Your task to perform on an android device: Go to ESPN.com Image 0: 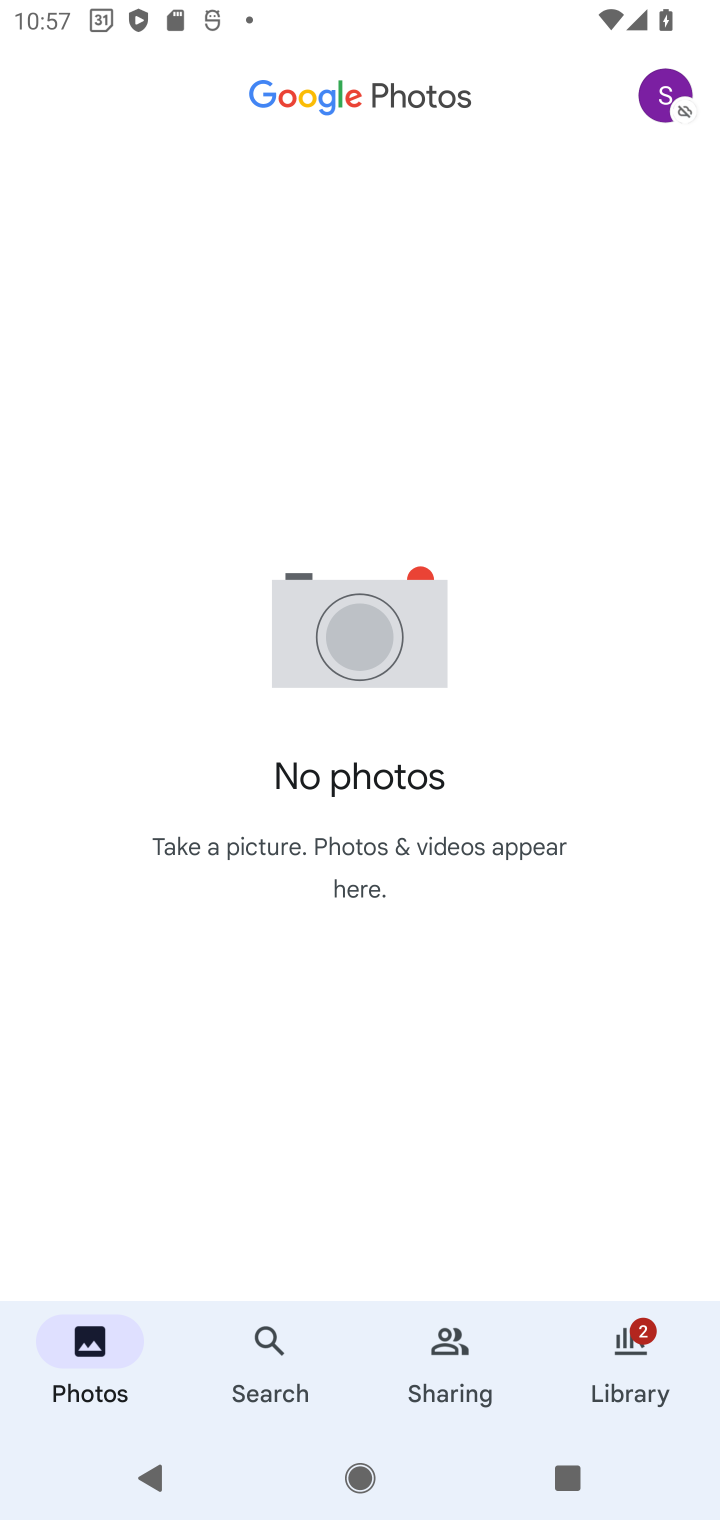
Step 0: press home button
Your task to perform on an android device: Go to ESPN.com Image 1: 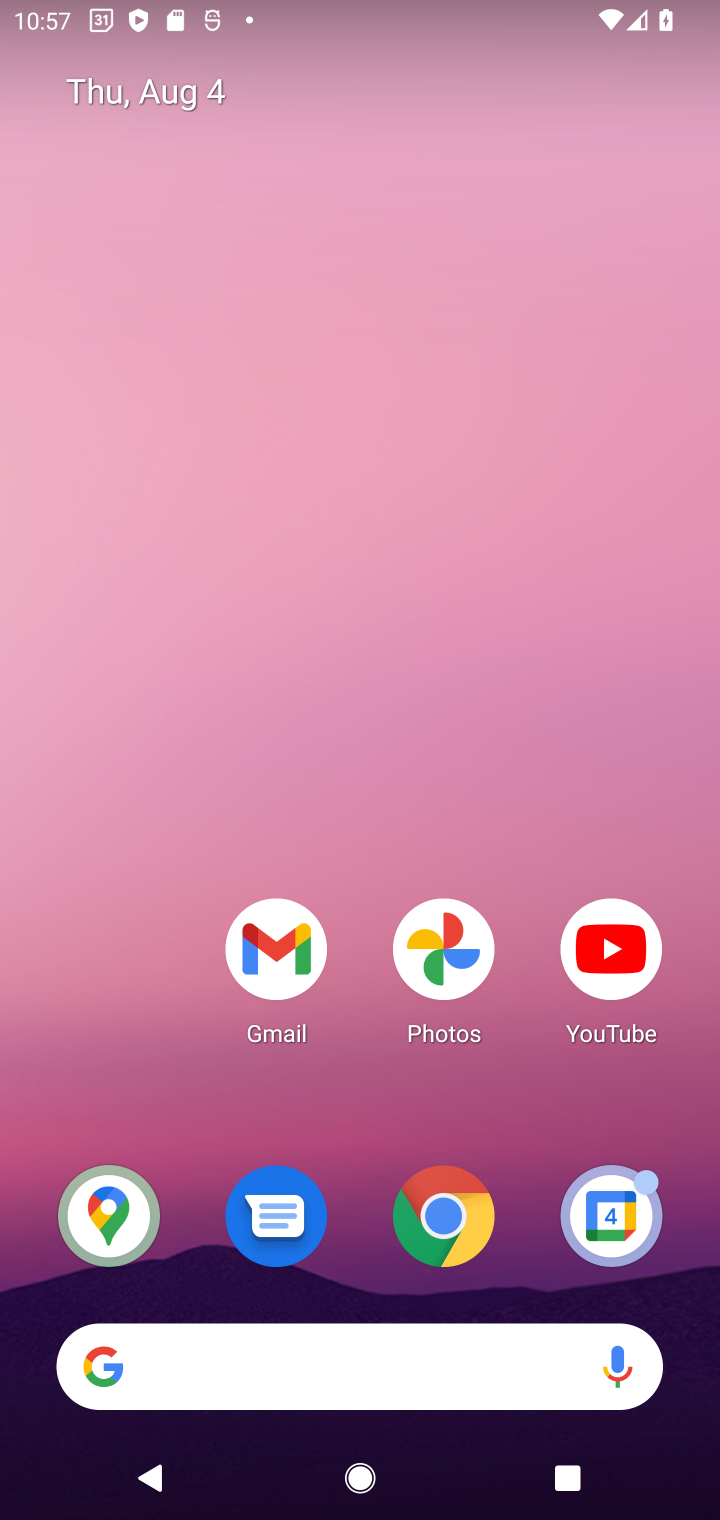
Step 1: click (447, 1219)
Your task to perform on an android device: Go to ESPN.com Image 2: 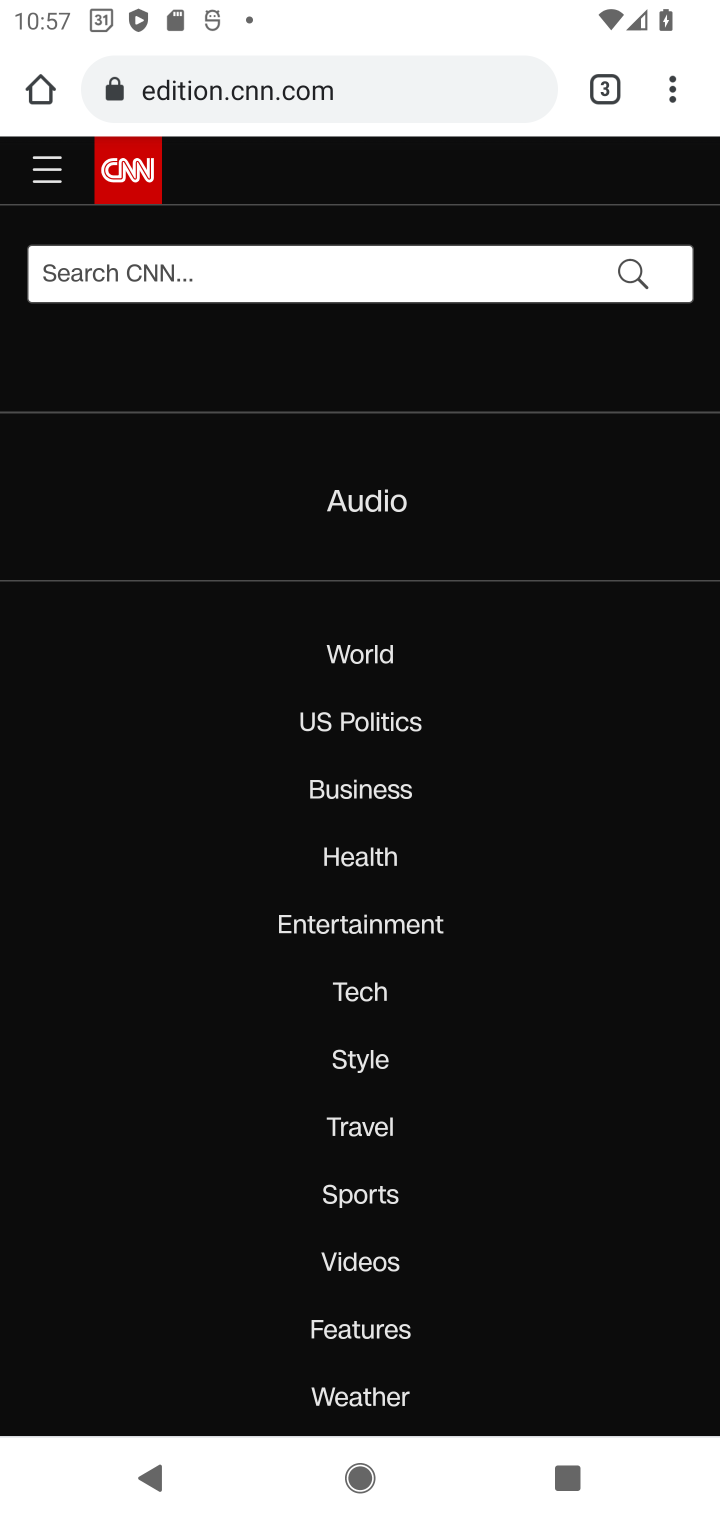
Step 2: click (404, 104)
Your task to perform on an android device: Go to ESPN.com Image 3: 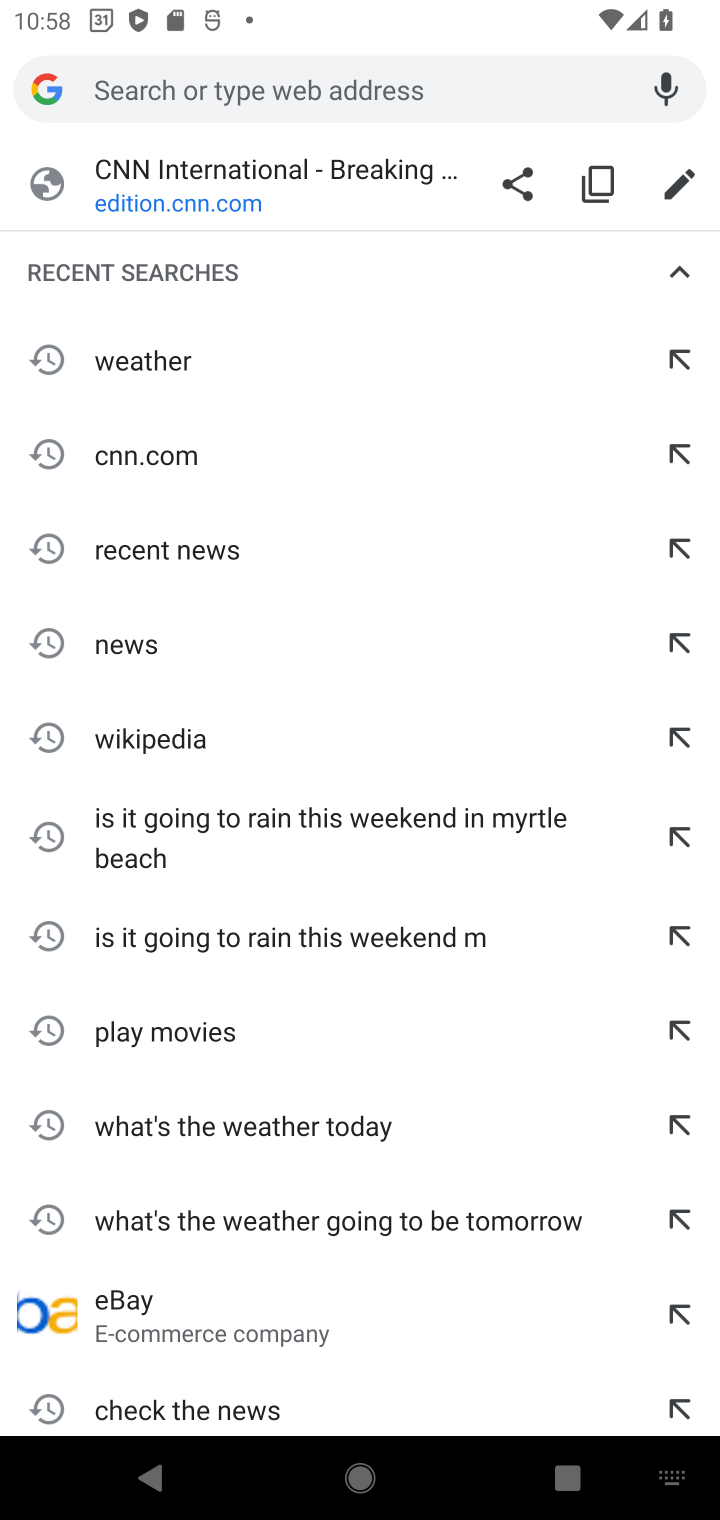
Step 3: type "ESPN.com"
Your task to perform on an android device: Go to ESPN.com Image 4: 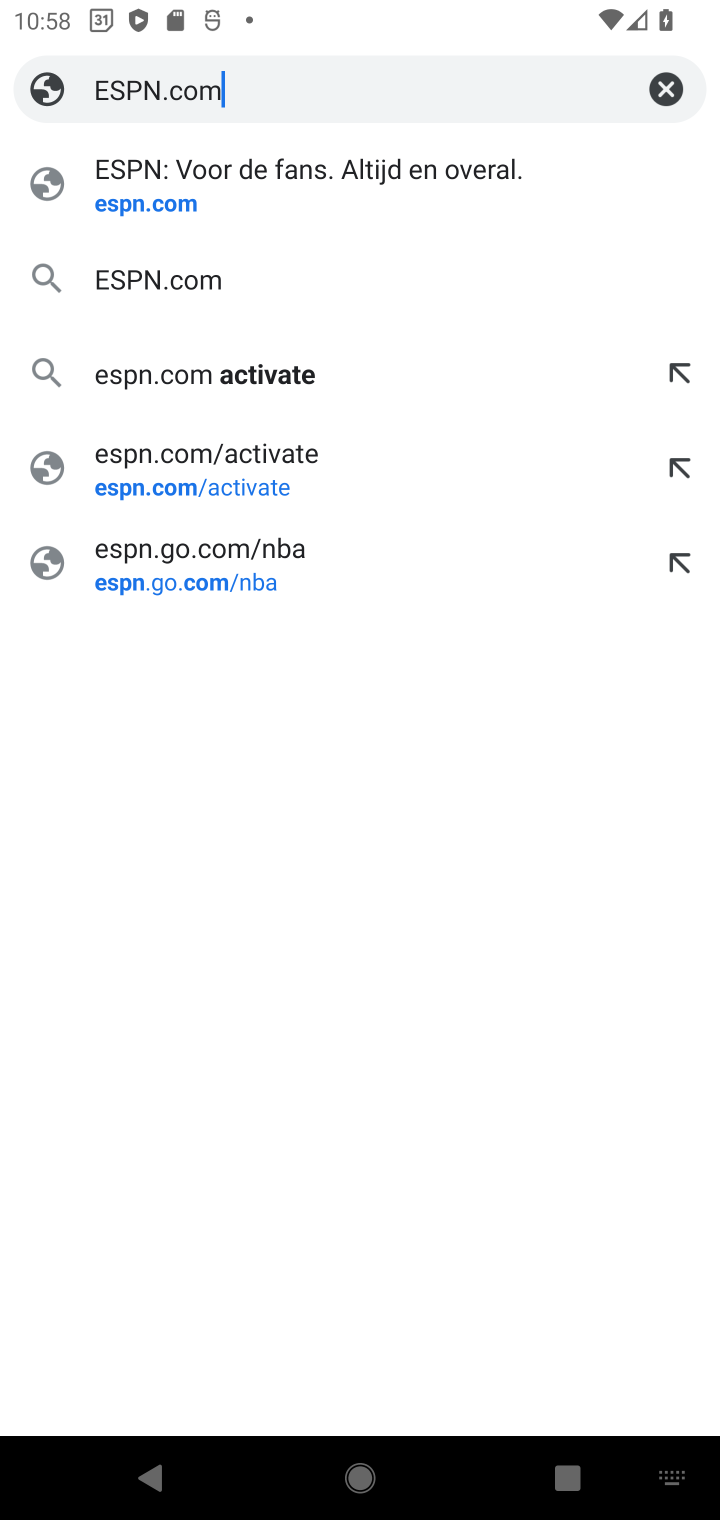
Step 4: click (99, 279)
Your task to perform on an android device: Go to ESPN.com Image 5: 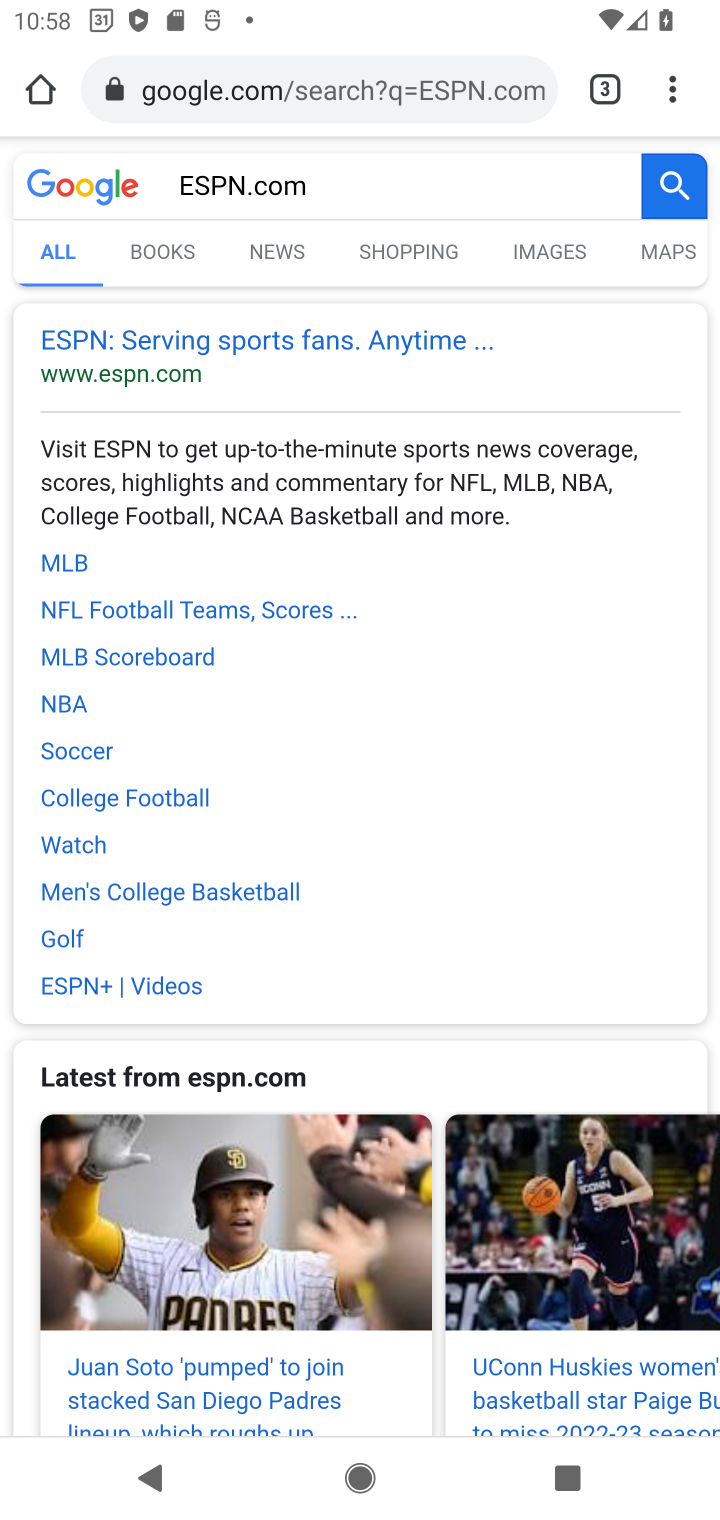
Step 5: click (126, 364)
Your task to perform on an android device: Go to ESPN.com Image 6: 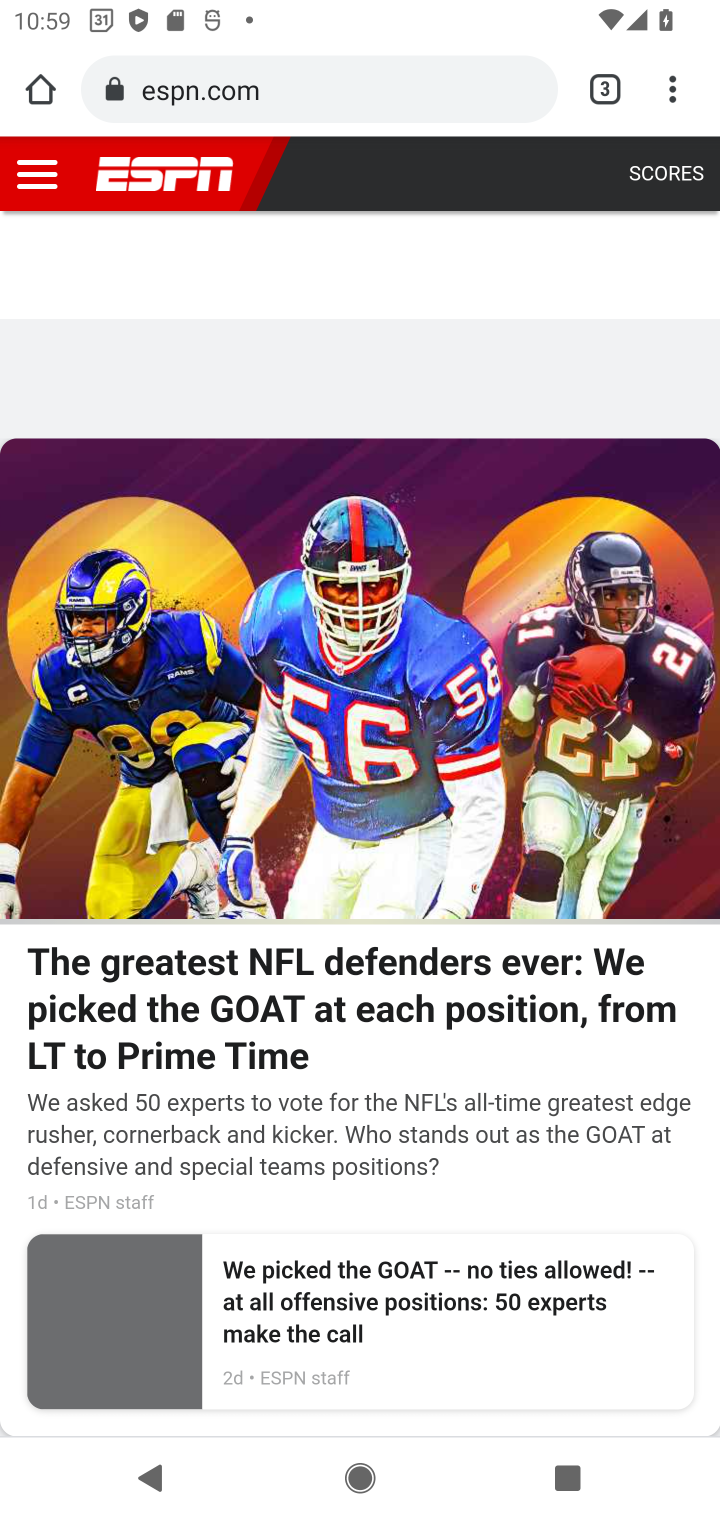
Step 6: task complete